Your task to perform on an android device: toggle notifications settings in the gmail app Image 0: 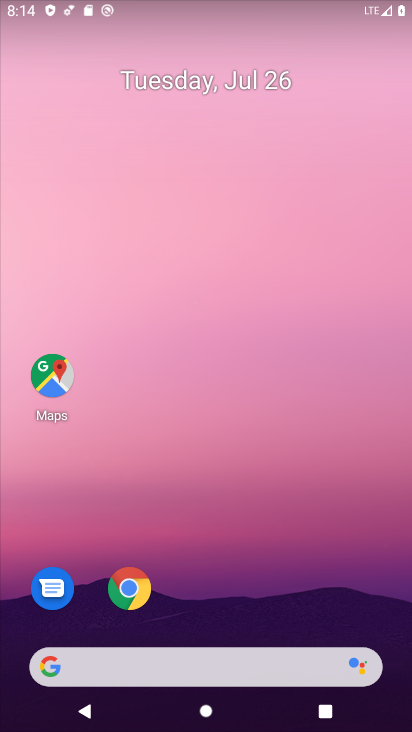
Step 0: drag from (344, 601) to (294, 59)
Your task to perform on an android device: toggle notifications settings in the gmail app Image 1: 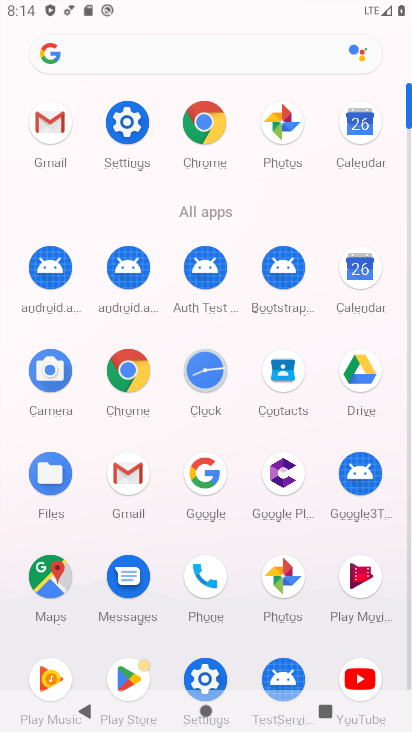
Step 1: click (44, 135)
Your task to perform on an android device: toggle notifications settings in the gmail app Image 2: 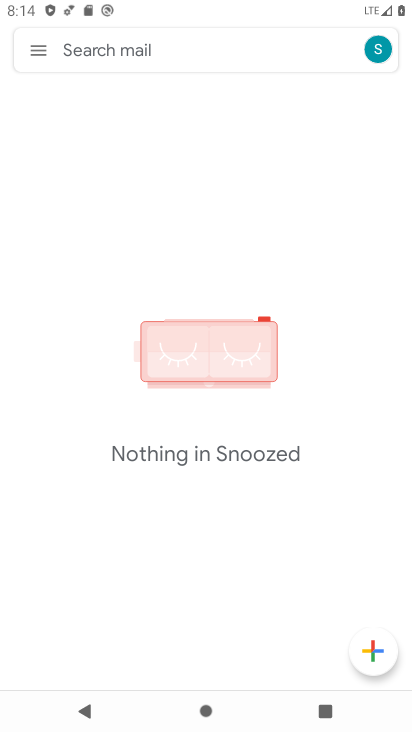
Step 2: click (47, 44)
Your task to perform on an android device: toggle notifications settings in the gmail app Image 3: 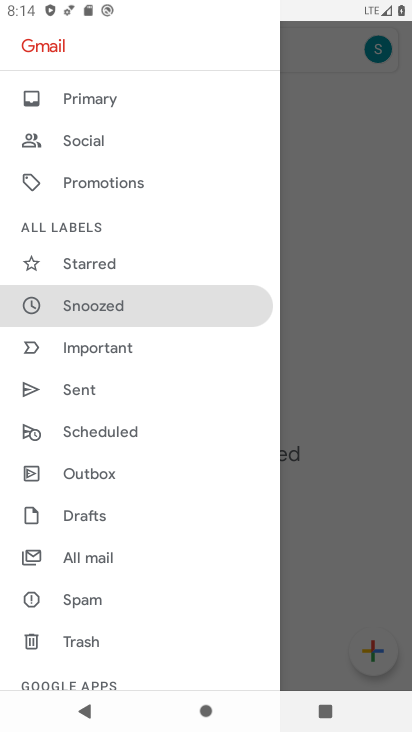
Step 3: drag from (96, 512) to (128, 48)
Your task to perform on an android device: toggle notifications settings in the gmail app Image 4: 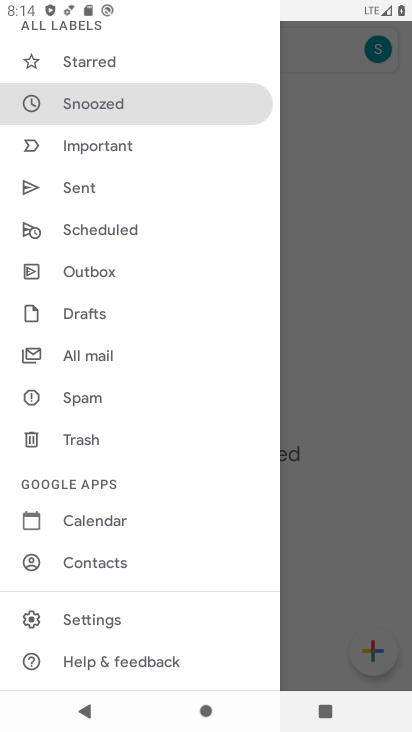
Step 4: click (115, 617)
Your task to perform on an android device: toggle notifications settings in the gmail app Image 5: 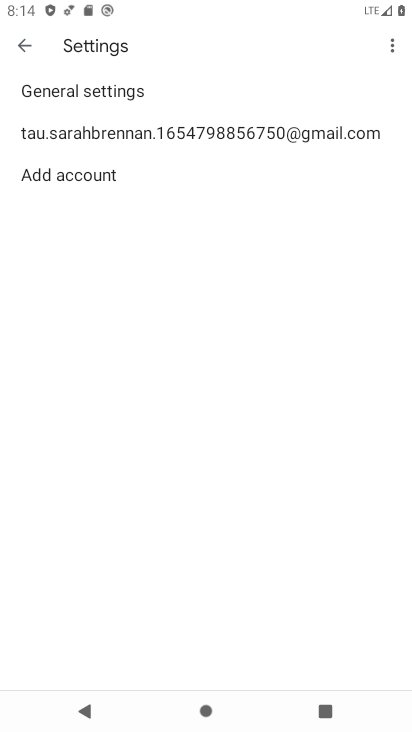
Step 5: click (218, 139)
Your task to perform on an android device: toggle notifications settings in the gmail app Image 6: 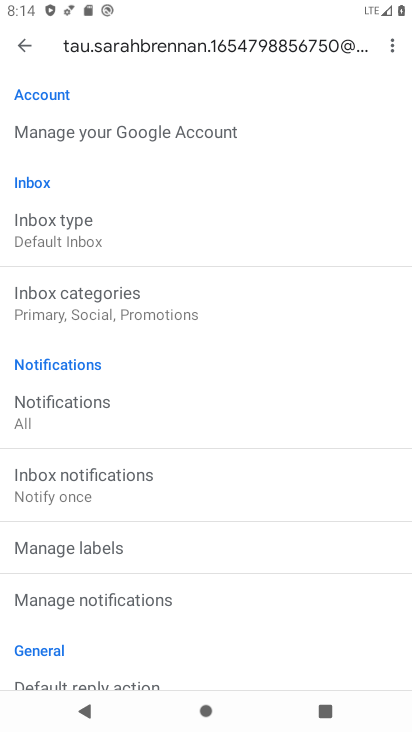
Step 6: click (132, 594)
Your task to perform on an android device: toggle notifications settings in the gmail app Image 7: 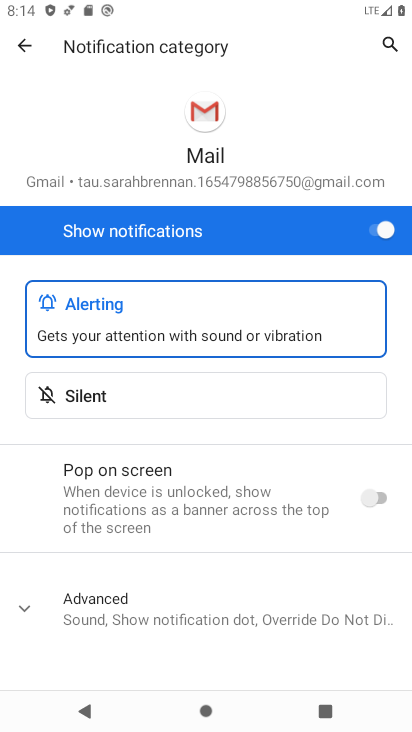
Step 7: click (393, 230)
Your task to perform on an android device: toggle notifications settings in the gmail app Image 8: 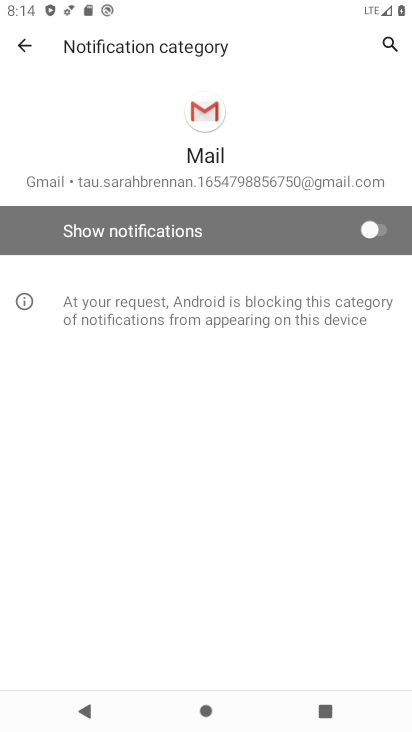
Step 8: task complete